Your task to perform on an android device: Play the last video I watched on Youtube Image 0: 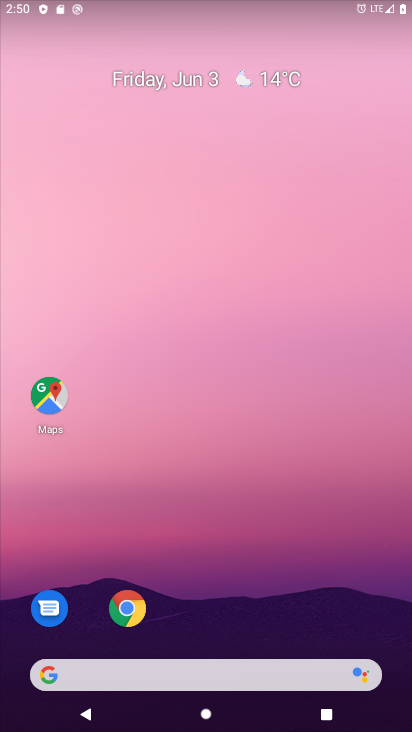
Step 0: drag from (236, 656) to (194, 209)
Your task to perform on an android device: Play the last video I watched on Youtube Image 1: 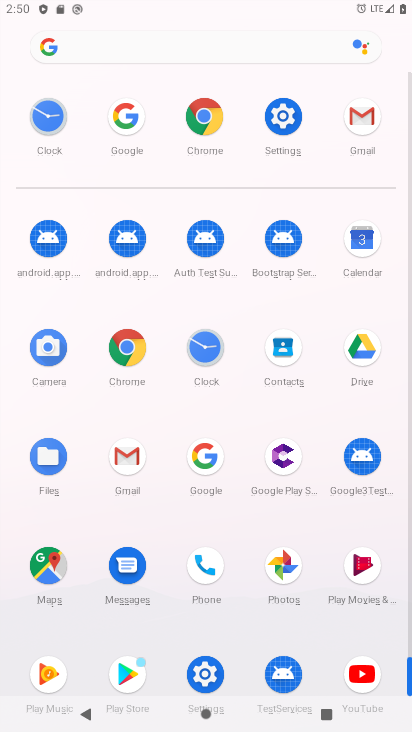
Step 1: click (373, 685)
Your task to perform on an android device: Play the last video I watched on Youtube Image 2: 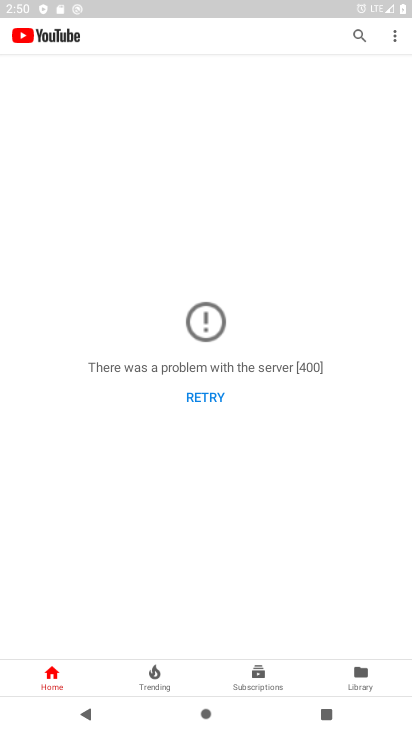
Step 2: click (211, 392)
Your task to perform on an android device: Play the last video I watched on Youtube Image 3: 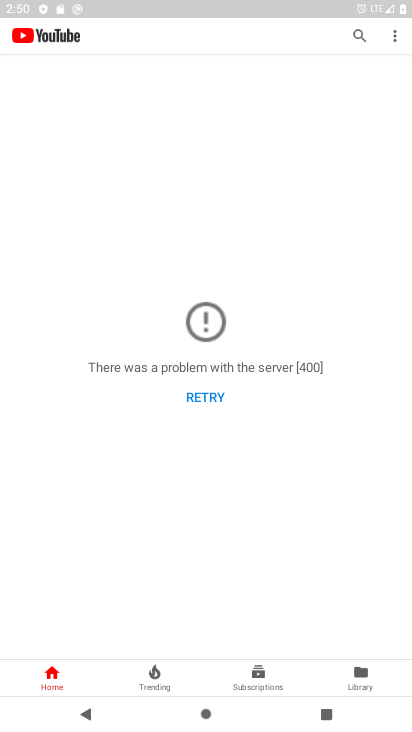
Step 3: task complete